Your task to perform on an android device: toggle pop-ups in chrome Image 0: 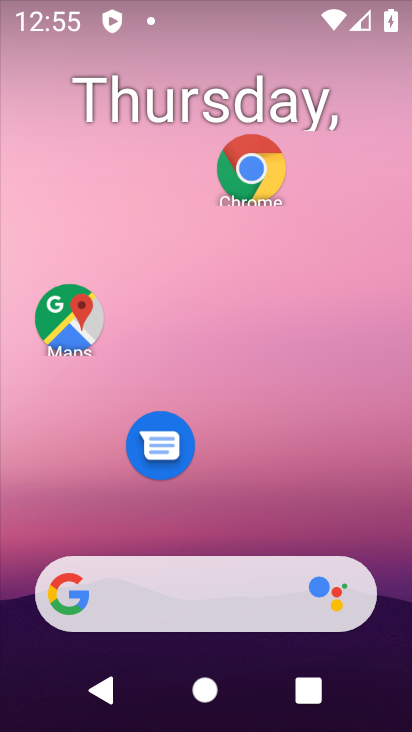
Step 0: drag from (272, 604) to (365, 60)
Your task to perform on an android device: toggle pop-ups in chrome Image 1: 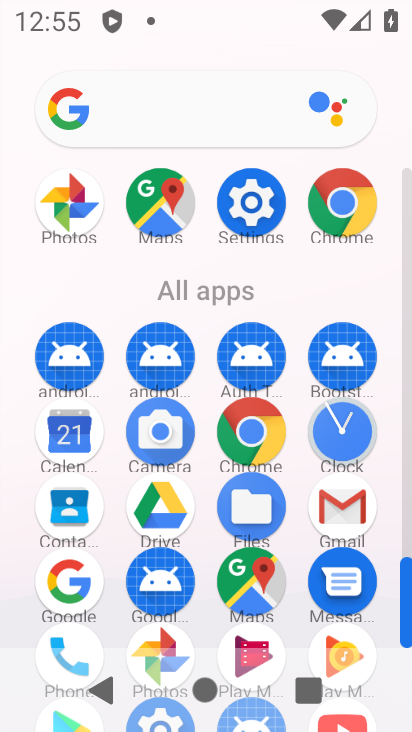
Step 1: click (331, 205)
Your task to perform on an android device: toggle pop-ups in chrome Image 2: 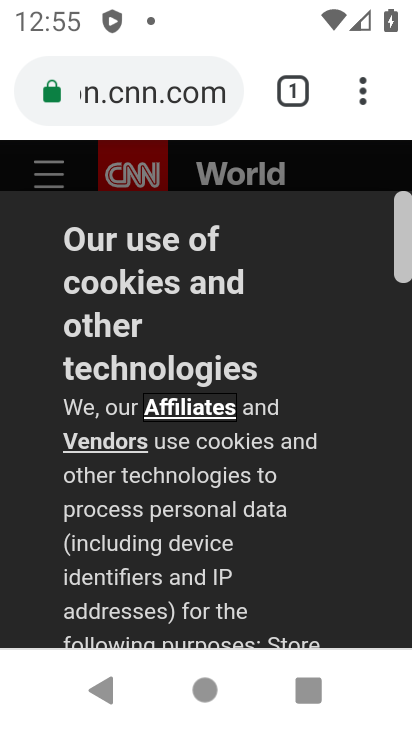
Step 2: click (361, 100)
Your task to perform on an android device: toggle pop-ups in chrome Image 3: 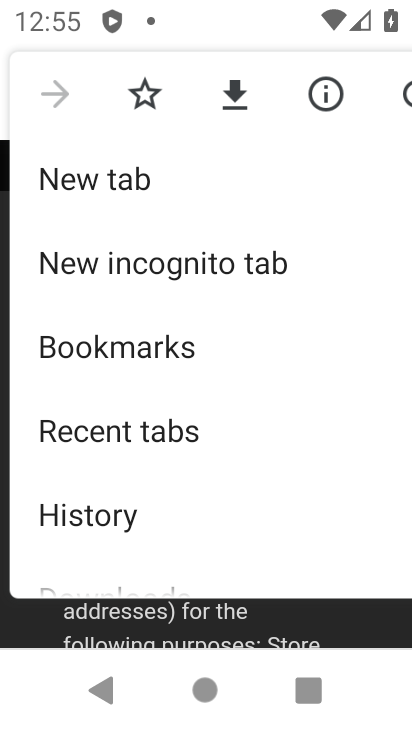
Step 3: drag from (135, 539) to (171, 208)
Your task to perform on an android device: toggle pop-ups in chrome Image 4: 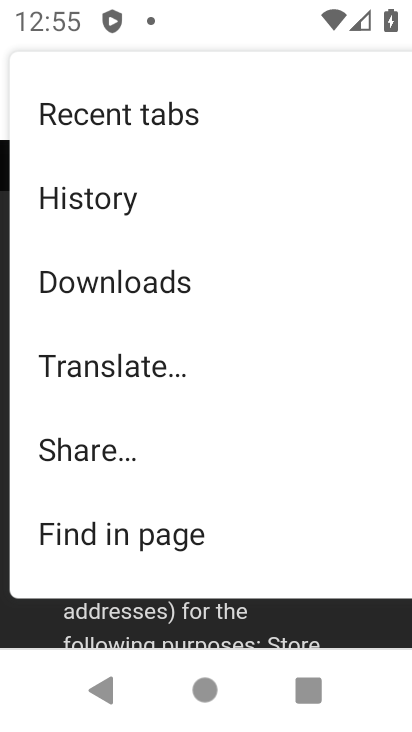
Step 4: drag from (137, 556) to (183, 271)
Your task to perform on an android device: toggle pop-ups in chrome Image 5: 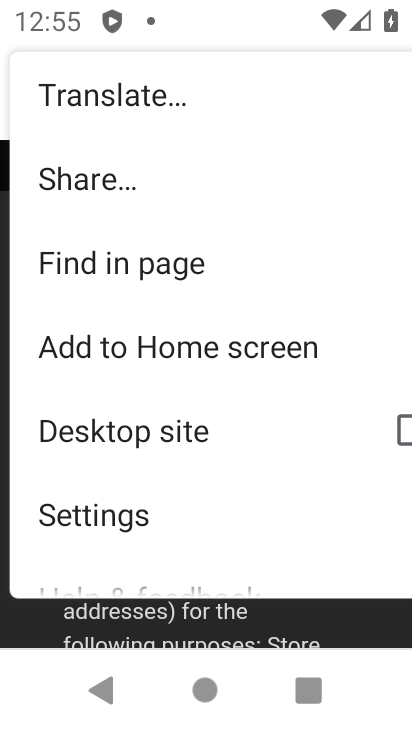
Step 5: click (112, 504)
Your task to perform on an android device: toggle pop-ups in chrome Image 6: 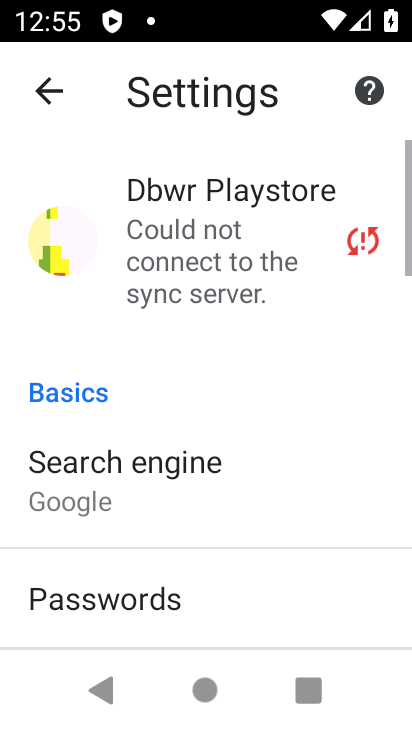
Step 6: drag from (107, 505) to (142, 256)
Your task to perform on an android device: toggle pop-ups in chrome Image 7: 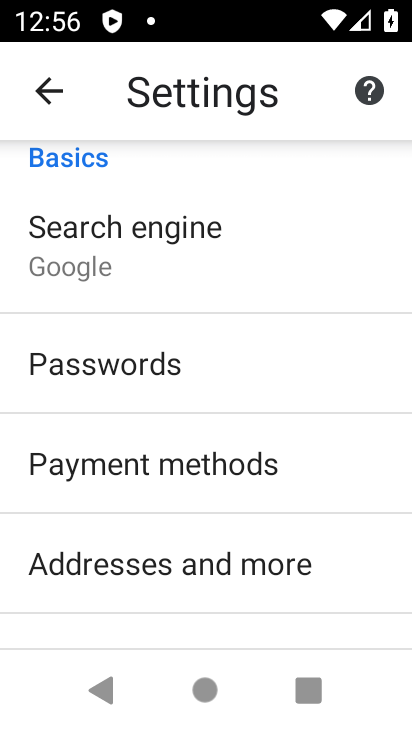
Step 7: drag from (167, 499) to (166, 259)
Your task to perform on an android device: toggle pop-ups in chrome Image 8: 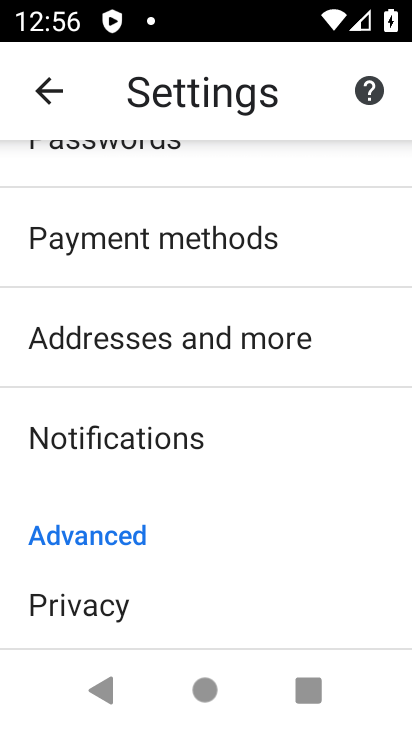
Step 8: drag from (137, 506) to (149, 322)
Your task to perform on an android device: toggle pop-ups in chrome Image 9: 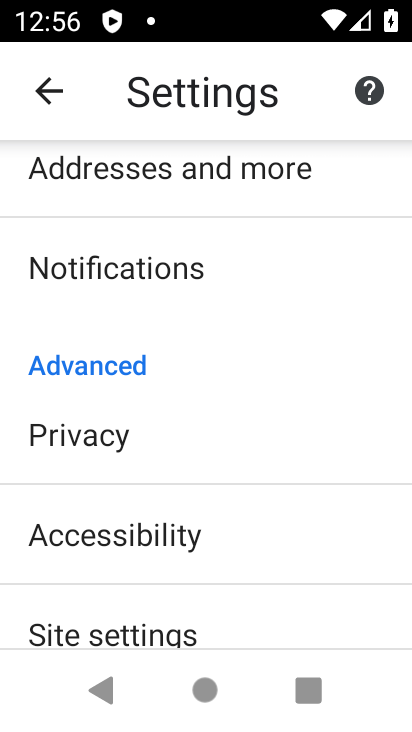
Step 9: click (137, 621)
Your task to perform on an android device: toggle pop-ups in chrome Image 10: 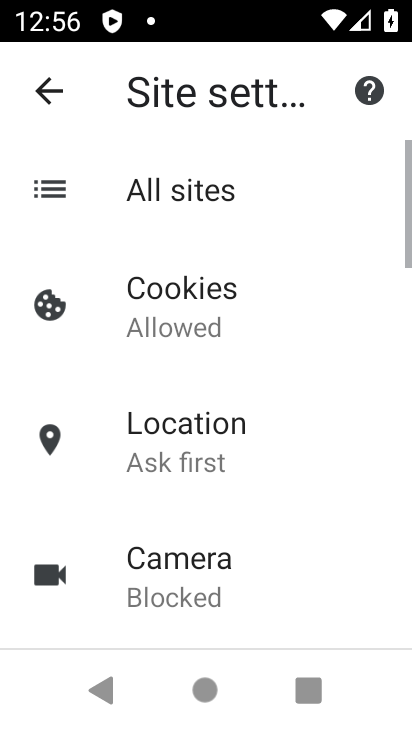
Step 10: drag from (138, 575) to (161, 291)
Your task to perform on an android device: toggle pop-ups in chrome Image 11: 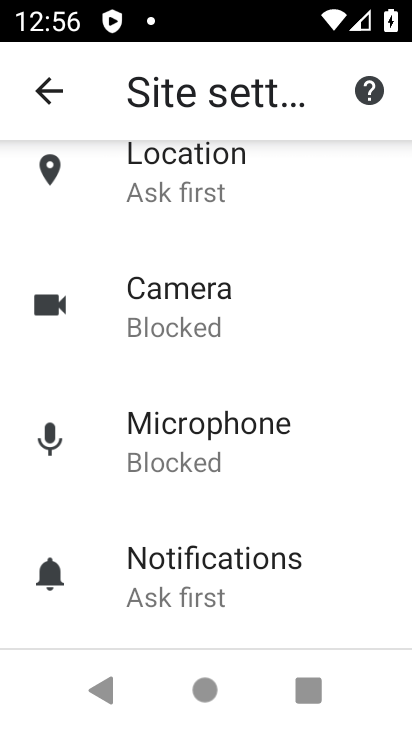
Step 11: drag from (158, 570) to (179, 433)
Your task to perform on an android device: toggle pop-ups in chrome Image 12: 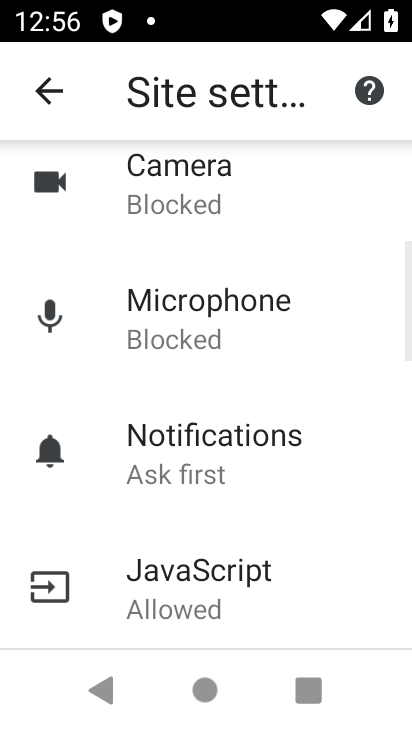
Step 12: drag from (207, 543) to (197, 389)
Your task to perform on an android device: toggle pop-ups in chrome Image 13: 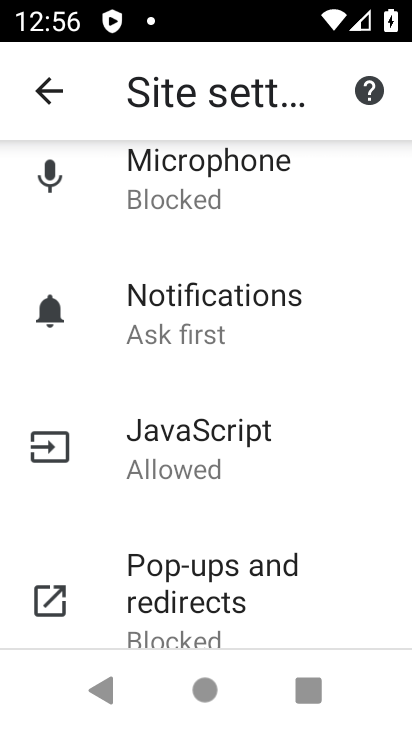
Step 13: click (186, 576)
Your task to perform on an android device: toggle pop-ups in chrome Image 14: 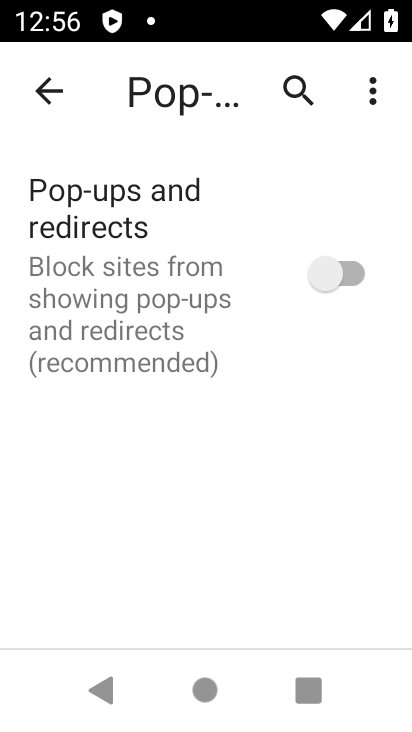
Step 14: click (266, 269)
Your task to perform on an android device: toggle pop-ups in chrome Image 15: 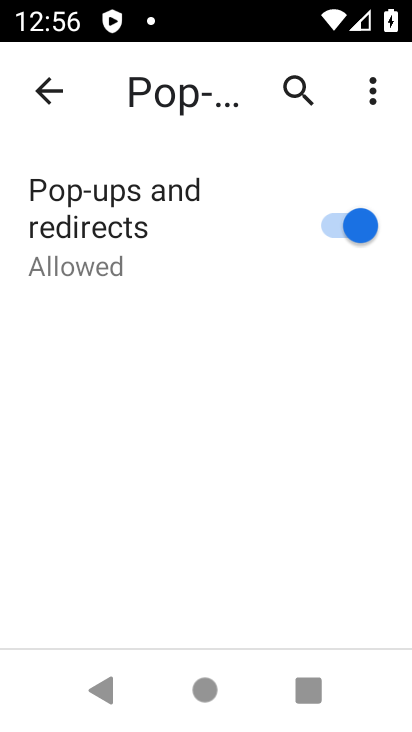
Step 15: task complete